Your task to perform on an android device: Go to location settings Image 0: 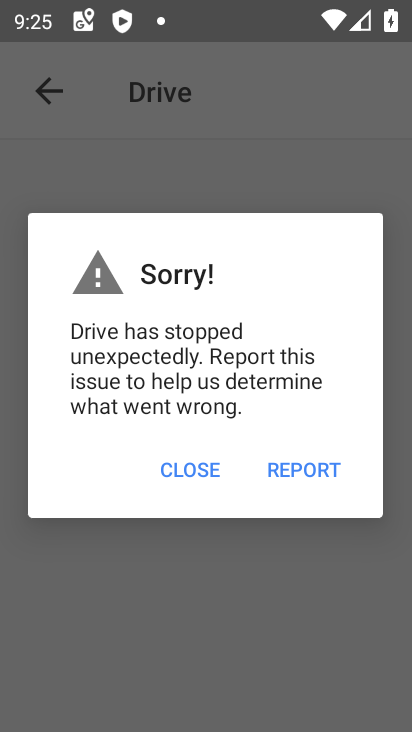
Step 0: press home button
Your task to perform on an android device: Go to location settings Image 1: 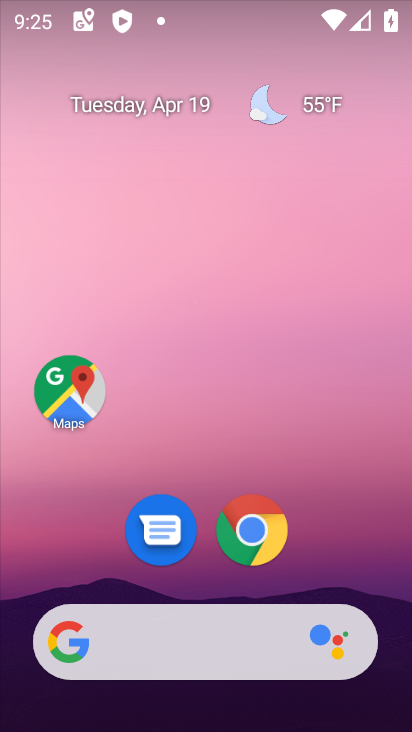
Step 1: drag from (230, 438) to (214, 48)
Your task to perform on an android device: Go to location settings Image 2: 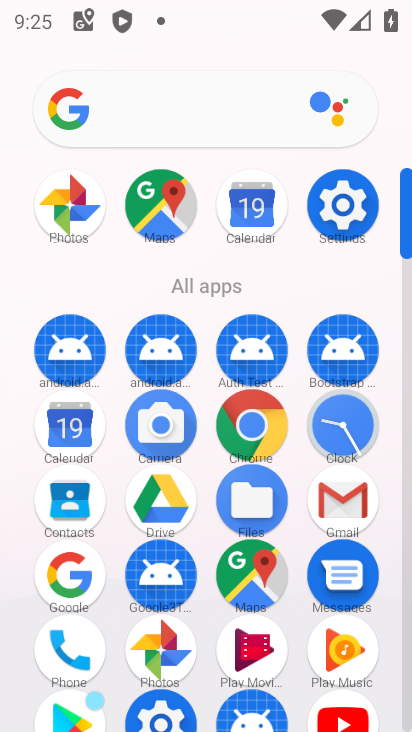
Step 2: click (339, 204)
Your task to perform on an android device: Go to location settings Image 3: 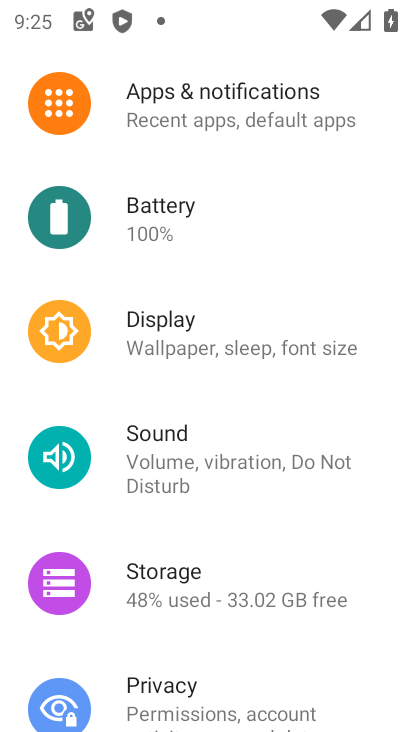
Step 3: drag from (216, 601) to (190, 195)
Your task to perform on an android device: Go to location settings Image 4: 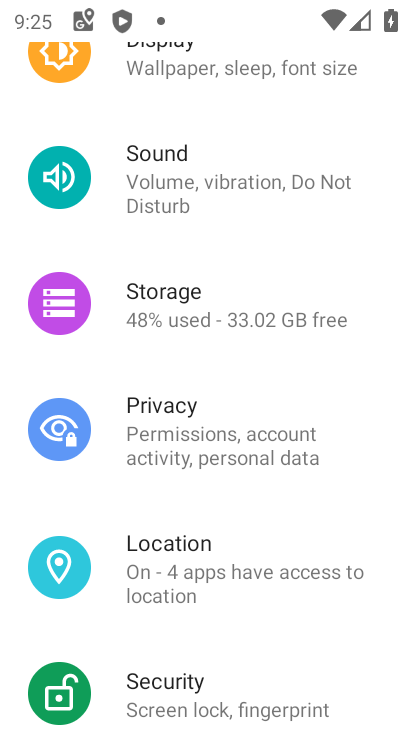
Step 4: click (173, 561)
Your task to perform on an android device: Go to location settings Image 5: 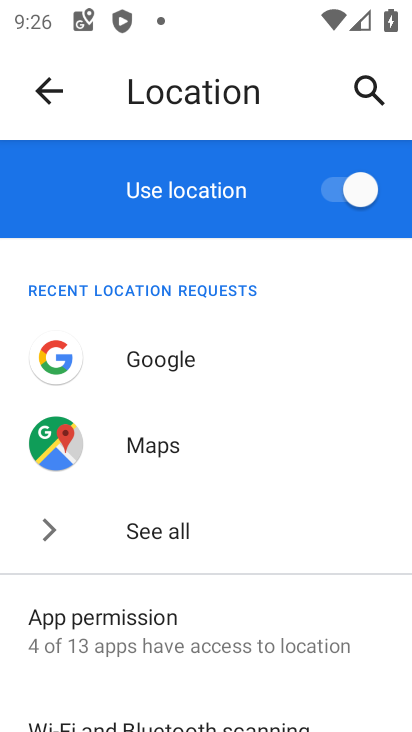
Step 5: task complete